Your task to perform on an android device: turn off airplane mode Image 0: 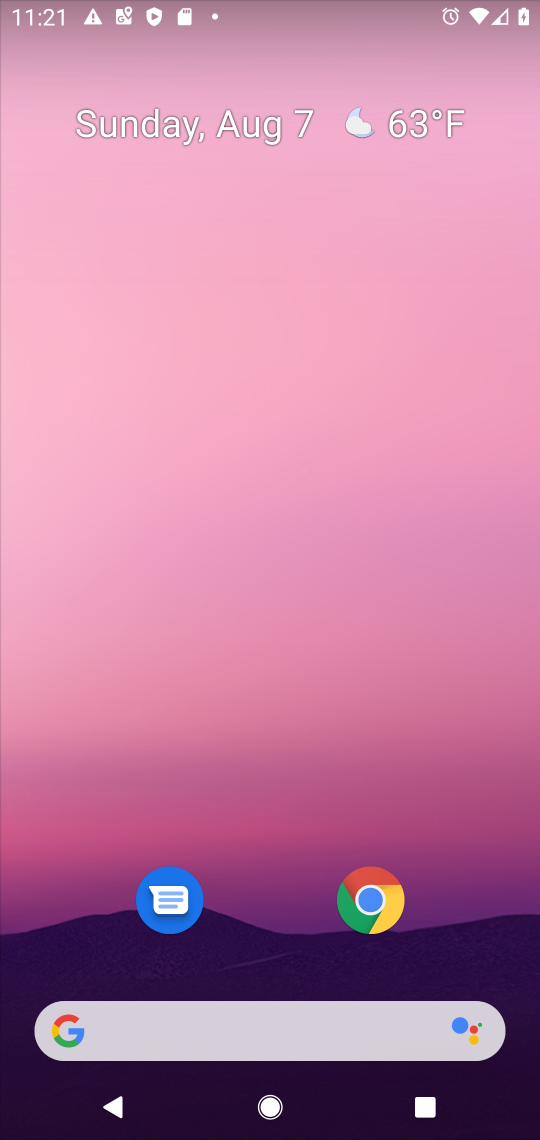
Step 0: press home button
Your task to perform on an android device: turn off airplane mode Image 1: 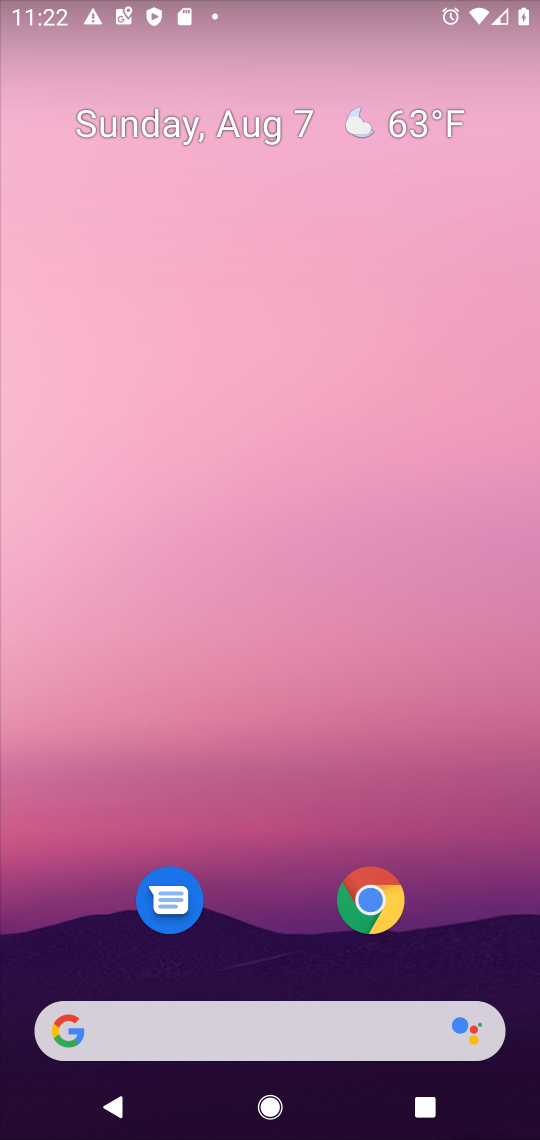
Step 1: task complete